Your task to perform on an android device: Open the Play Movies app and select the watchlist tab. Image 0: 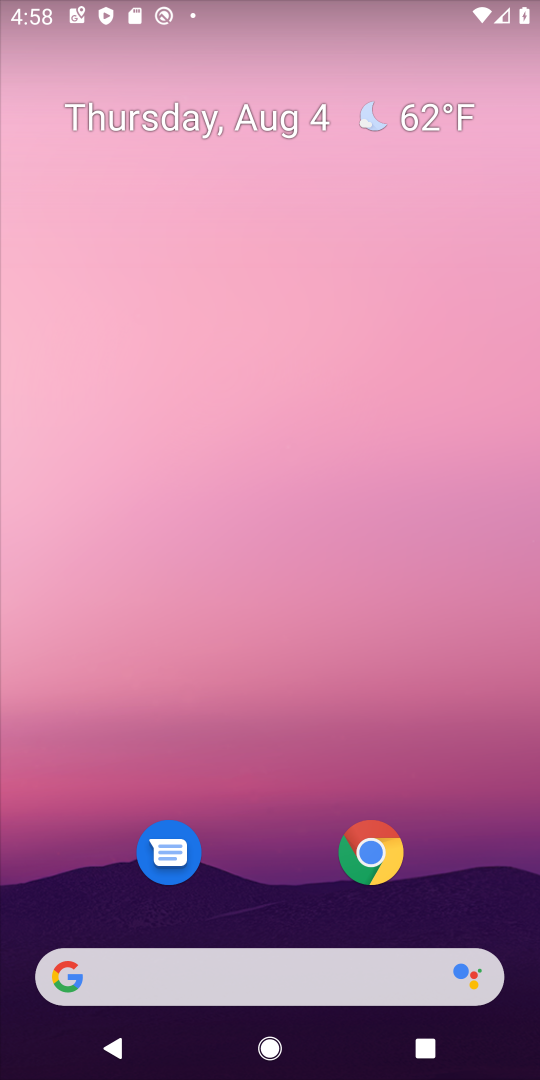
Step 0: drag from (277, 780) to (282, 285)
Your task to perform on an android device: Open the Play Movies app and select the watchlist tab. Image 1: 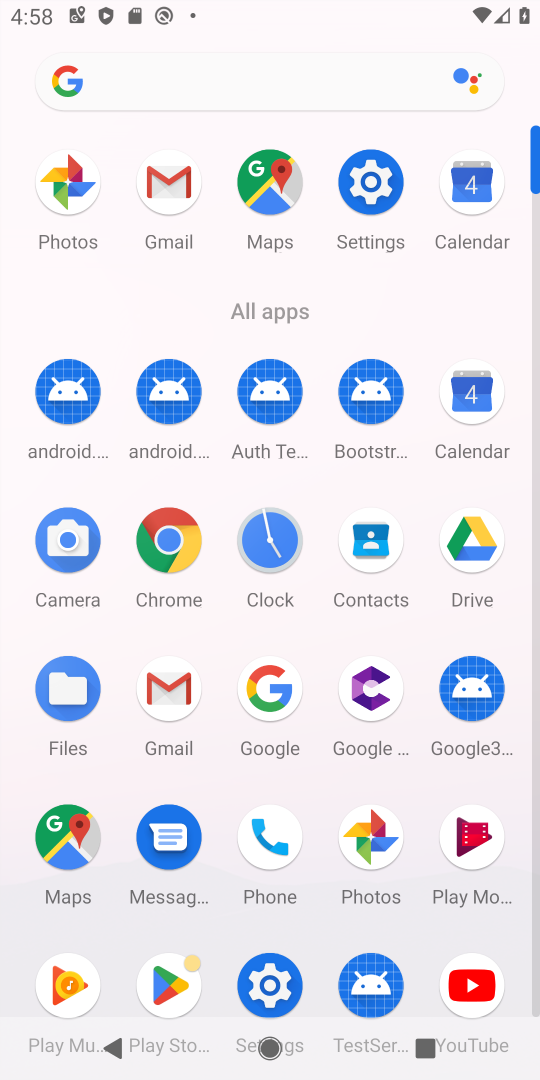
Step 1: click (467, 840)
Your task to perform on an android device: Open the Play Movies app and select the watchlist tab. Image 2: 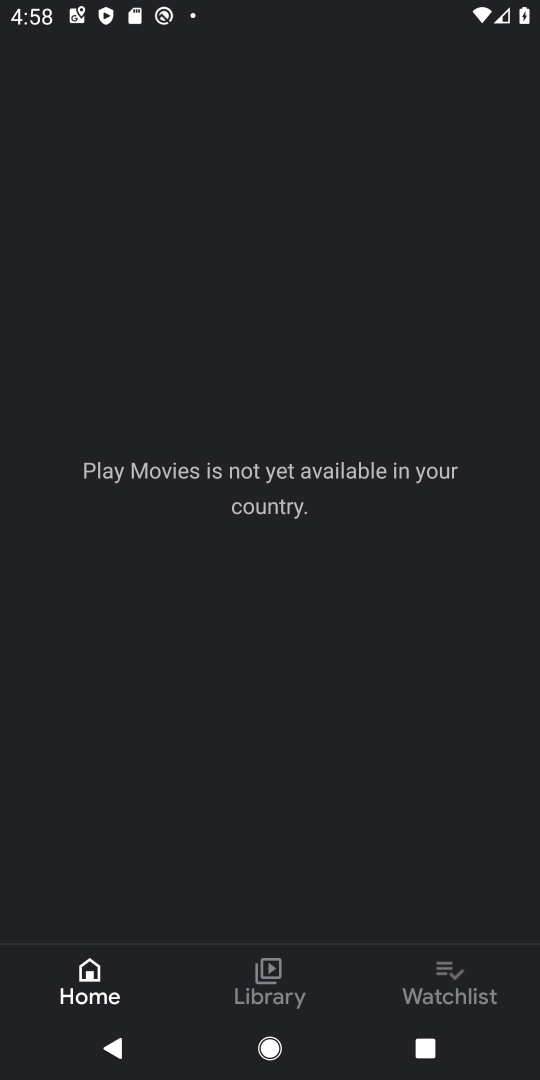
Step 2: click (453, 980)
Your task to perform on an android device: Open the Play Movies app and select the watchlist tab. Image 3: 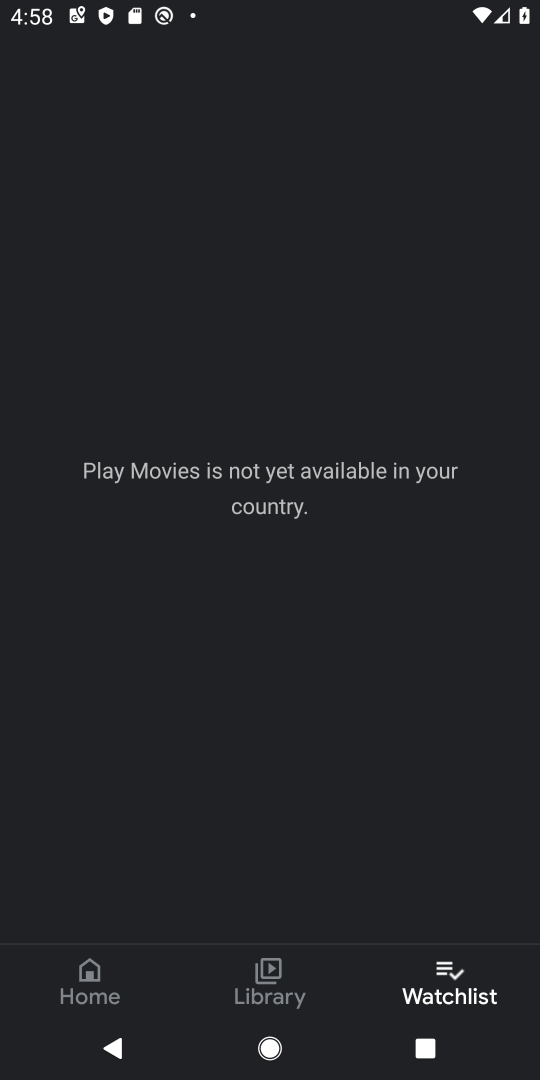
Step 3: task complete